Your task to perform on an android device: turn on bluetooth scan Image 0: 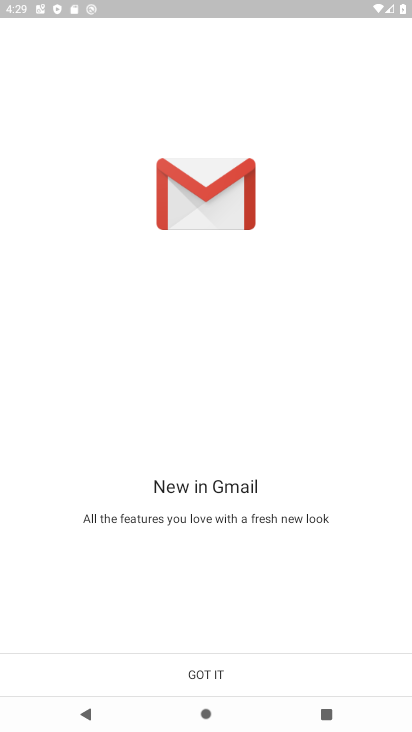
Step 0: click (274, 664)
Your task to perform on an android device: turn on bluetooth scan Image 1: 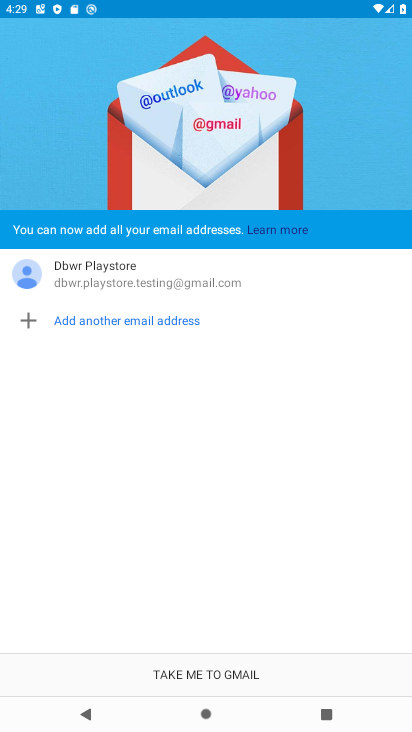
Step 1: click (249, 676)
Your task to perform on an android device: turn on bluetooth scan Image 2: 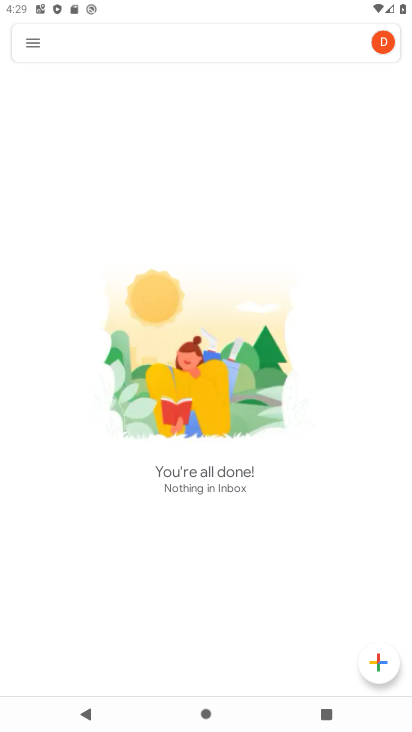
Step 2: press home button
Your task to perform on an android device: turn on bluetooth scan Image 3: 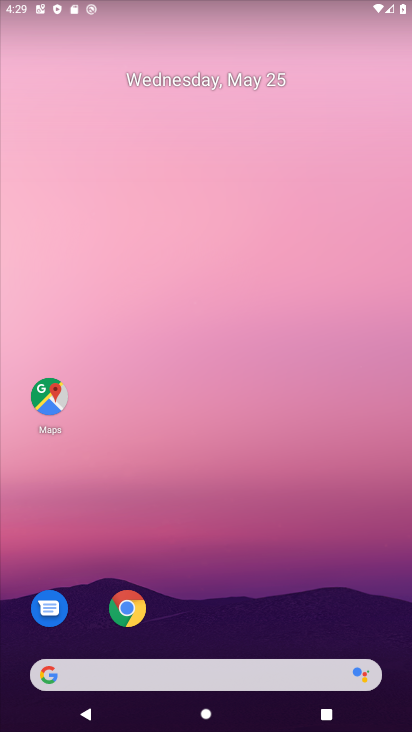
Step 3: drag from (144, 714) to (245, 276)
Your task to perform on an android device: turn on bluetooth scan Image 4: 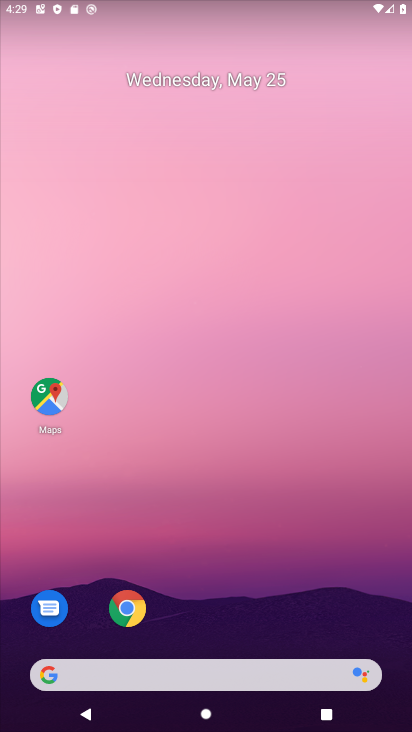
Step 4: drag from (282, 682) to (342, 48)
Your task to perform on an android device: turn on bluetooth scan Image 5: 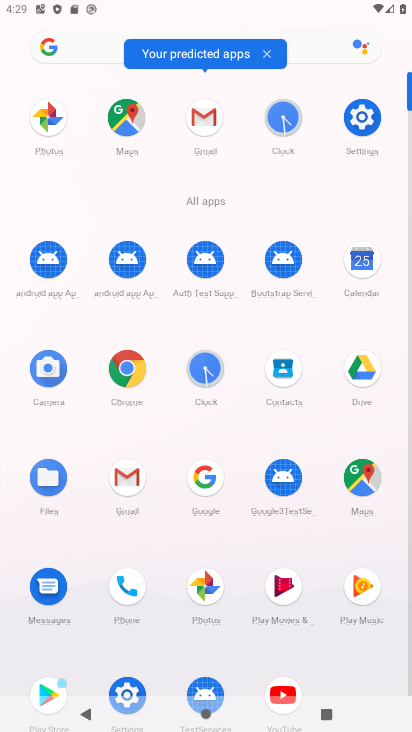
Step 5: click (354, 116)
Your task to perform on an android device: turn on bluetooth scan Image 6: 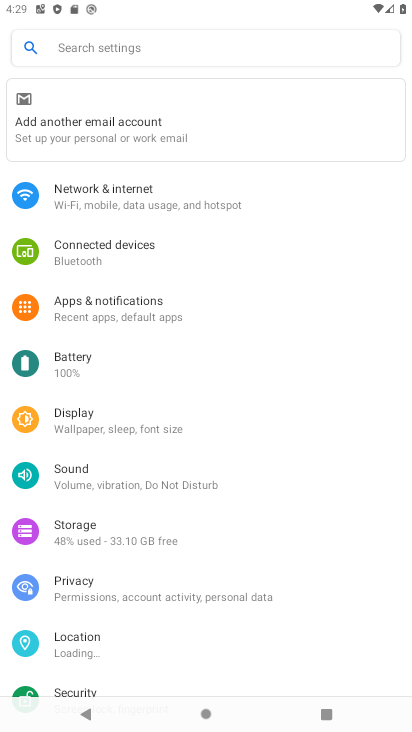
Step 6: click (85, 649)
Your task to perform on an android device: turn on bluetooth scan Image 7: 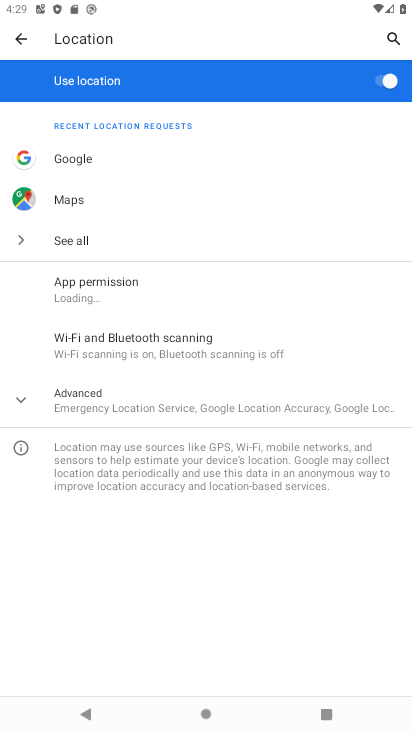
Step 7: click (174, 293)
Your task to perform on an android device: turn on bluetooth scan Image 8: 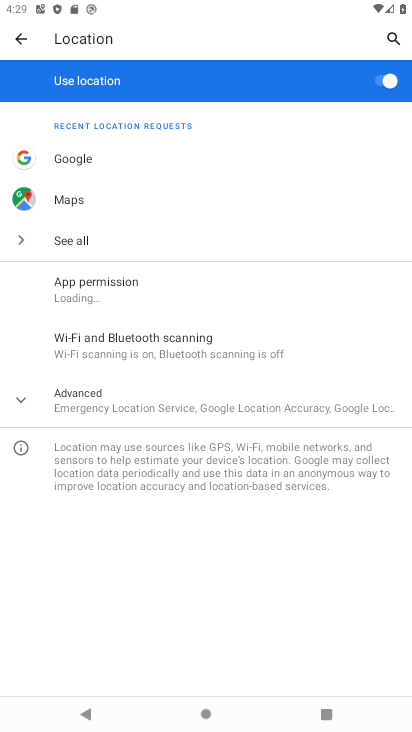
Step 8: click (165, 342)
Your task to perform on an android device: turn on bluetooth scan Image 9: 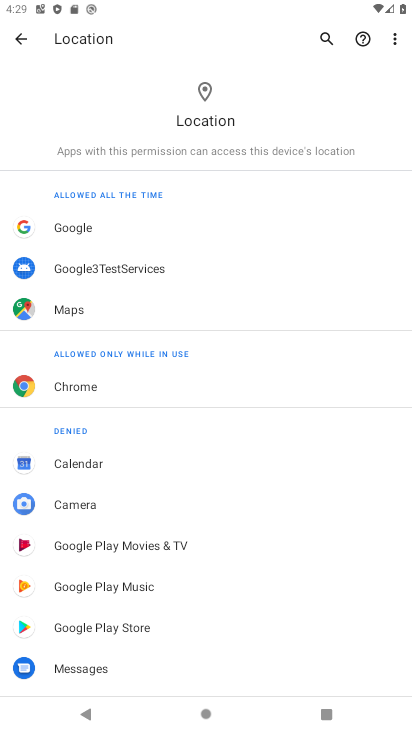
Step 9: press back button
Your task to perform on an android device: turn on bluetooth scan Image 10: 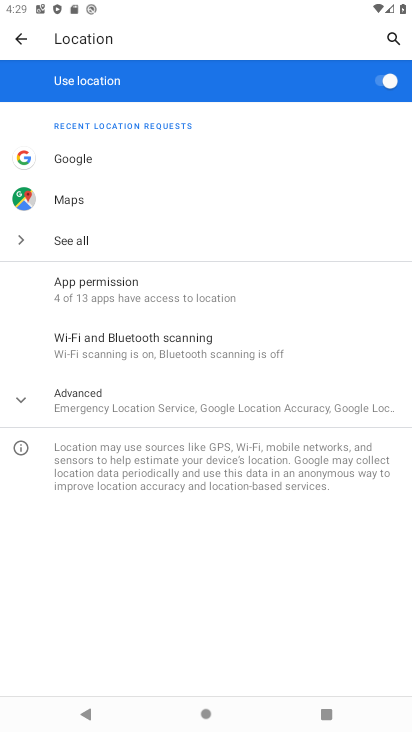
Step 10: click (157, 336)
Your task to perform on an android device: turn on bluetooth scan Image 11: 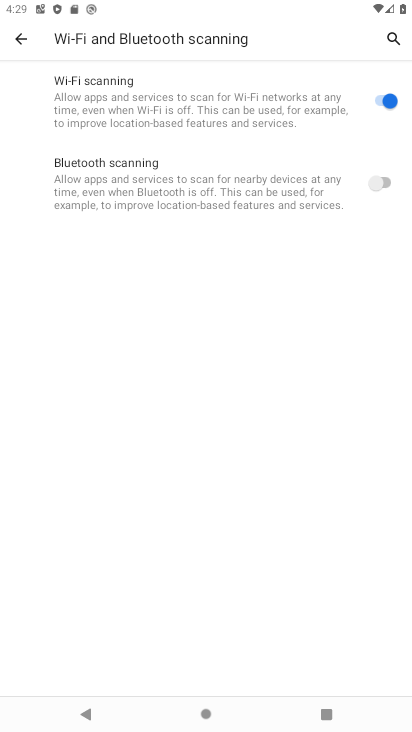
Step 11: click (378, 183)
Your task to perform on an android device: turn on bluetooth scan Image 12: 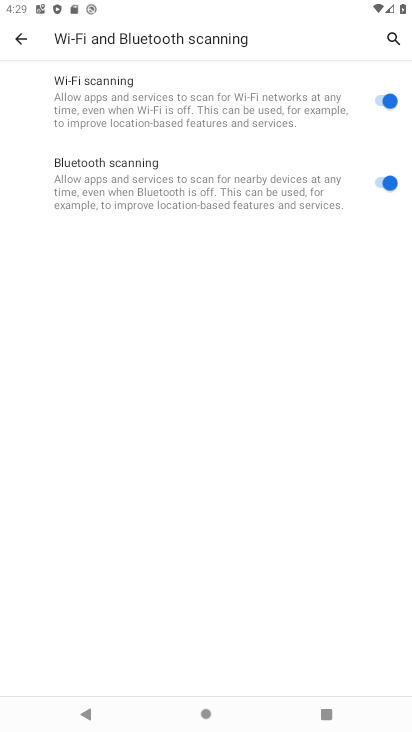
Step 12: task complete